Your task to perform on an android device: Show me popular games on the Play Store Image 0: 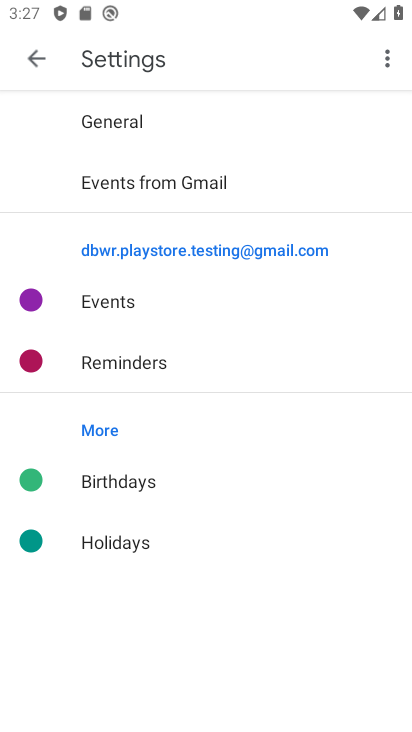
Step 0: drag from (293, 135) to (297, 79)
Your task to perform on an android device: Show me popular games on the Play Store Image 1: 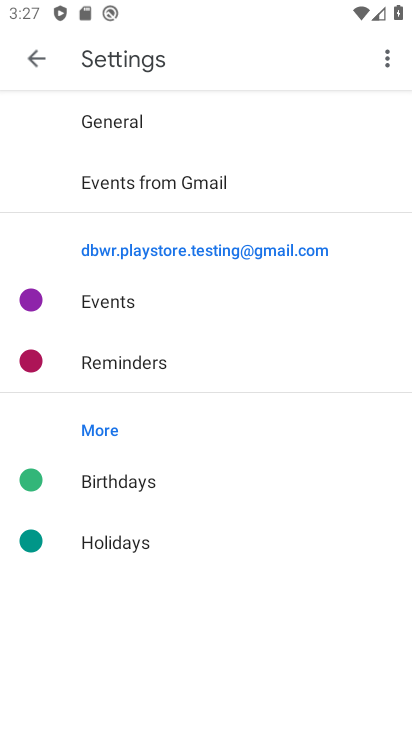
Step 1: press home button
Your task to perform on an android device: Show me popular games on the Play Store Image 2: 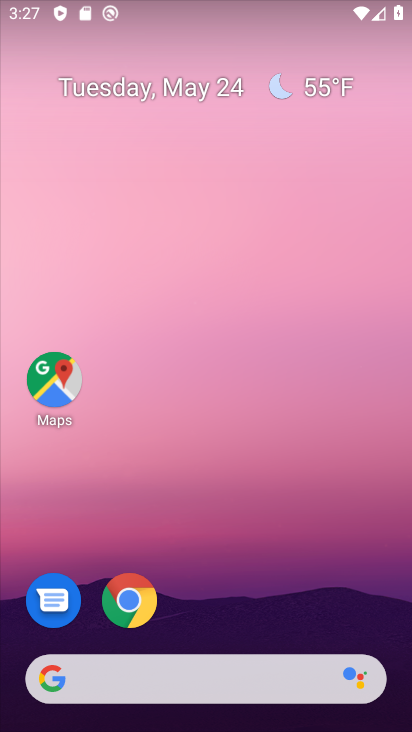
Step 2: drag from (200, 674) to (132, 59)
Your task to perform on an android device: Show me popular games on the Play Store Image 3: 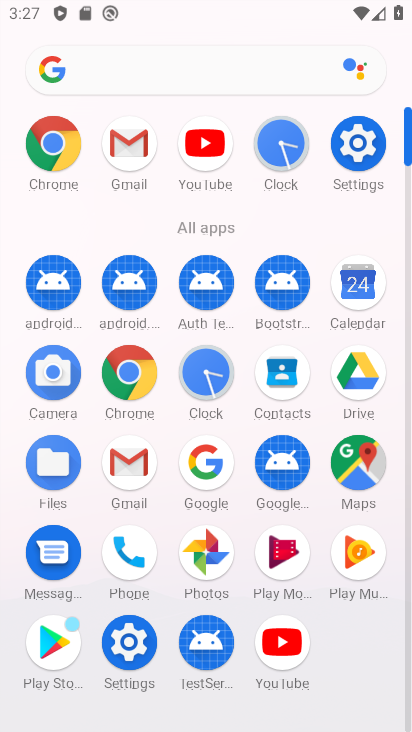
Step 3: click (44, 641)
Your task to perform on an android device: Show me popular games on the Play Store Image 4: 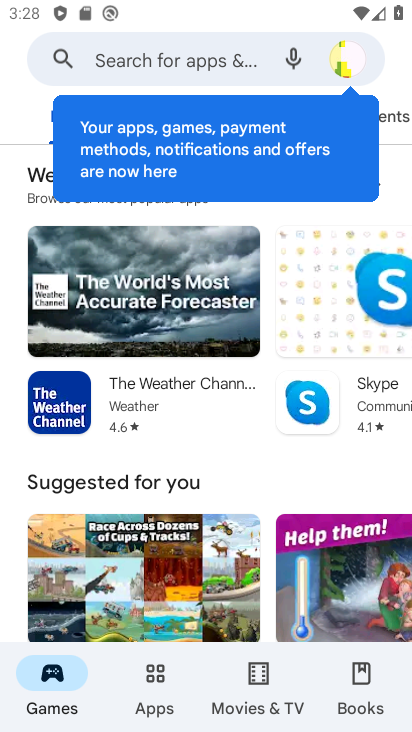
Step 4: drag from (205, 481) to (92, 6)
Your task to perform on an android device: Show me popular games on the Play Store Image 5: 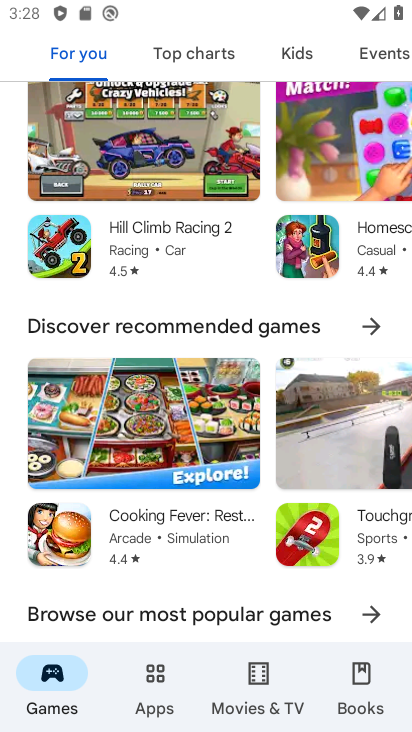
Step 5: click (271, 613)
Your task to perform on an android device: Show me popular games on the Play Store Image 6: 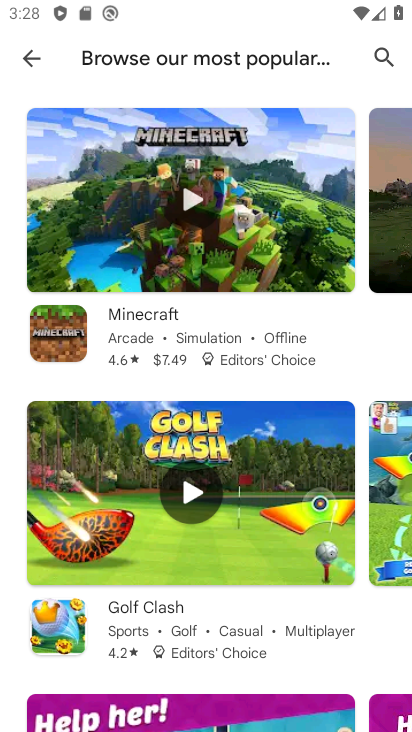
Step 6: task complete